Your task to perform on an android device: open app "Indeed Job Search" (install if not already installed) and enter user name: "quixotic@inbox.com" and password: "microphones" Image 0: 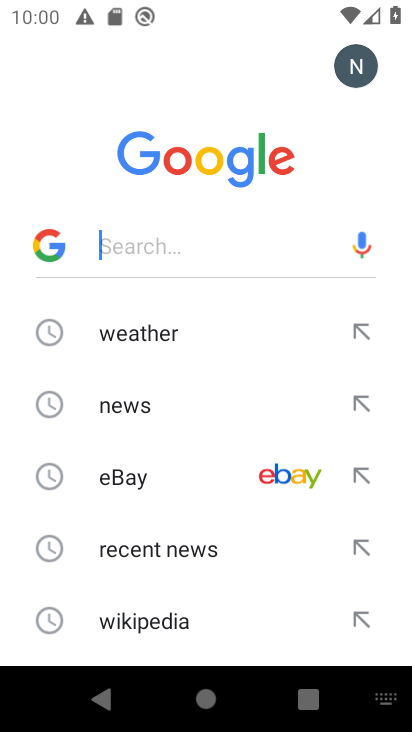
Step 0: press home button
Your task to perform on an android device: open app "Indeed Job Search" (install if not already installed) and enter user name: "quixotic@inbox.com" and password: "microphones" Image 1: 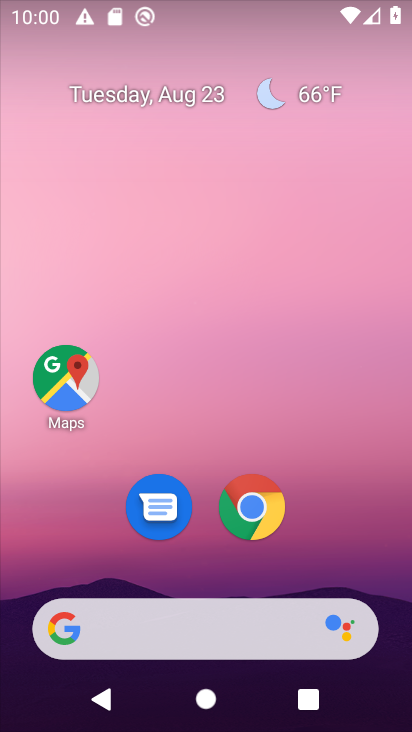
Step 1: drag from (396, 631) to (359, 106)
Your task to perform on an android device: open app "Indeed Job Search" (install if not already installed) and enter user name: "quixotic@inbox.com" and password: "microphones" Image 2: 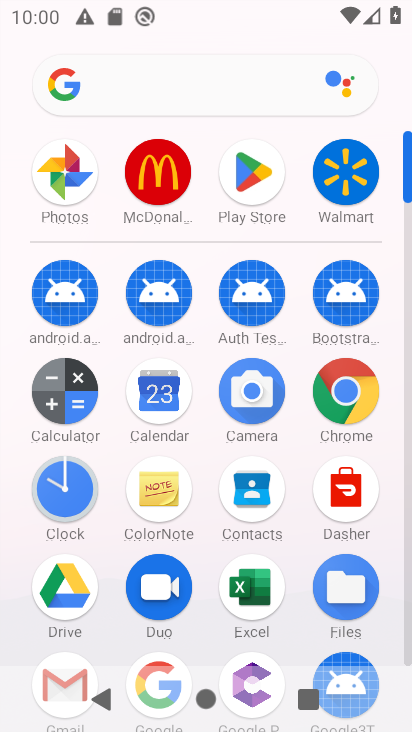
Step 2: click (409, 643)
Your task to perform on an android device: open app "Indeed Job Search" (install if not already installed) and enter user name: "quixotic@inbox.com" and password: "microphones" Image 3: 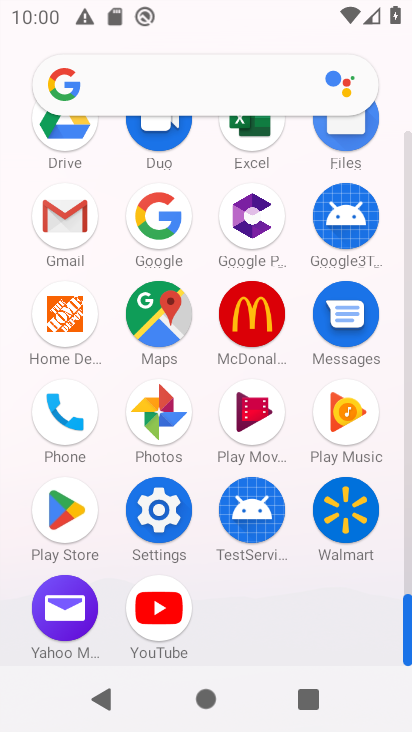
Step 3: click (66, 505)
Your task to perform on an android device: open app "Indeed Job Search" (install if not already installed) and enter user name: "quixotic@inbox.com" and password: "microphones" Image 4: 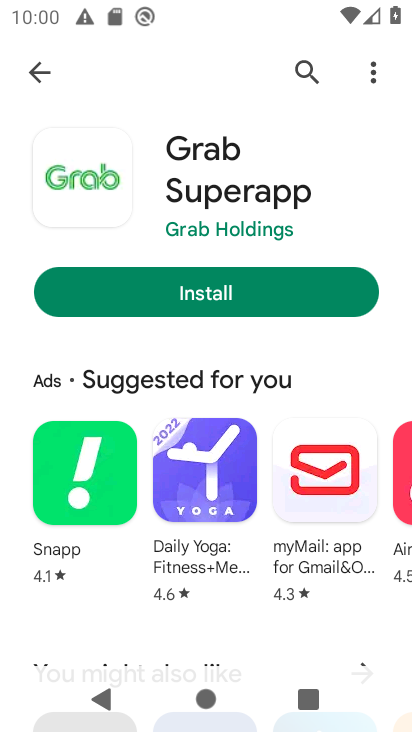
Step 4: click (303, 70)
Your task to perform on an android device: open app "Indeed Job Search" (install if not already installed) and enter user name: "quixotic@inbox.com" and password: "microphones" Image 5: 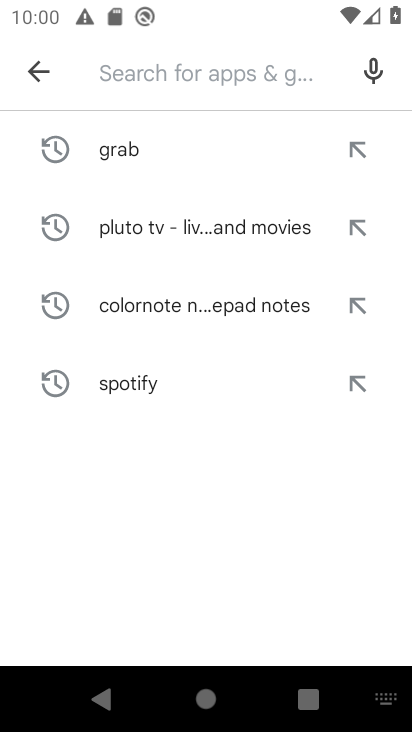
Step 5: type "Indeed Job Search"
Your task to perform on an android device: open app "Indeed Job Search" (install if not already installed) and enter user name: "quixotic@inbox.com" and password: "microphones" Image 6: 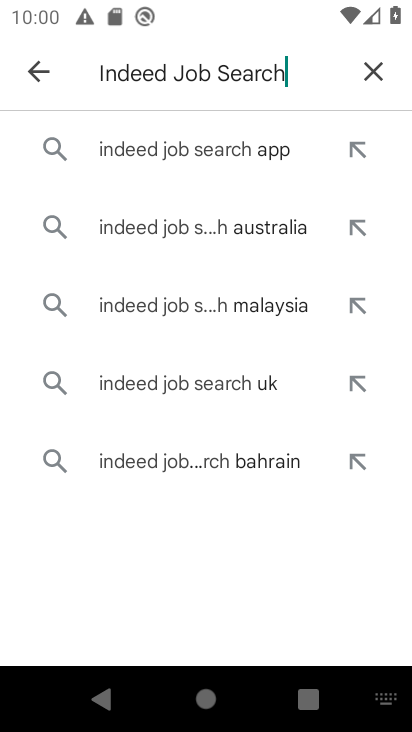
Step 6: click (208, 151)
Your task to perform on an android device: open app "Indeed Job Search" (install if not already installed) and enter user name: "quixotic@inbox.com" and password: "microphones" Image 7: 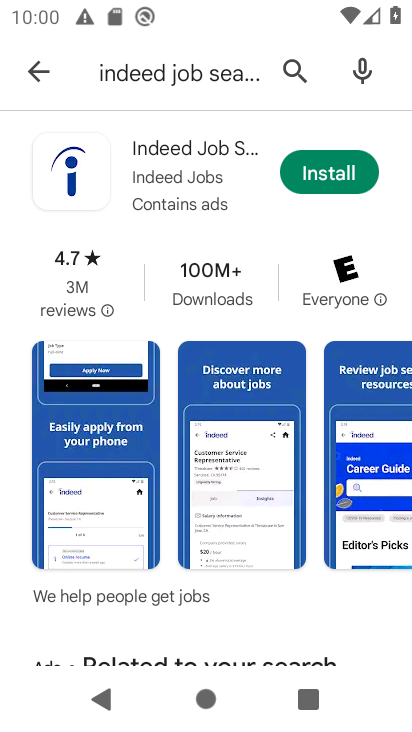
Step 7: click (171, 165)
Your task to perform on an android device: open app "Indeed Job Search" (install if not already installed) and enter user name: "quixotic@inbox.com" and password: "microphones" Image 8: 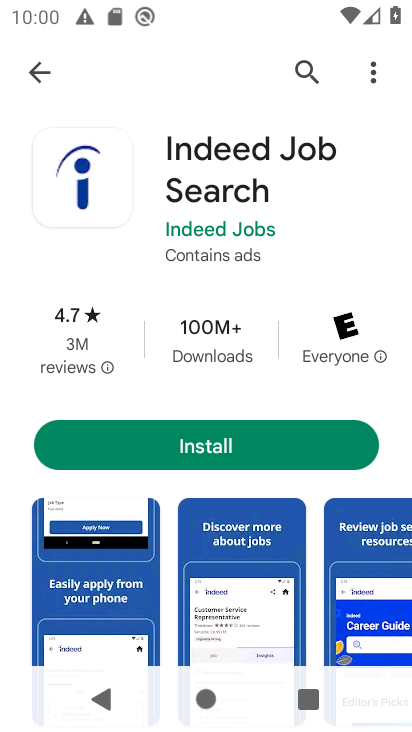
Step 8: click (197, 446)
Your task to perform on an android device: open app "Indeed Job Search" (install if not already installed) and enter user name: "quixotic@inbox.com" and password: "microphones" Image 9: 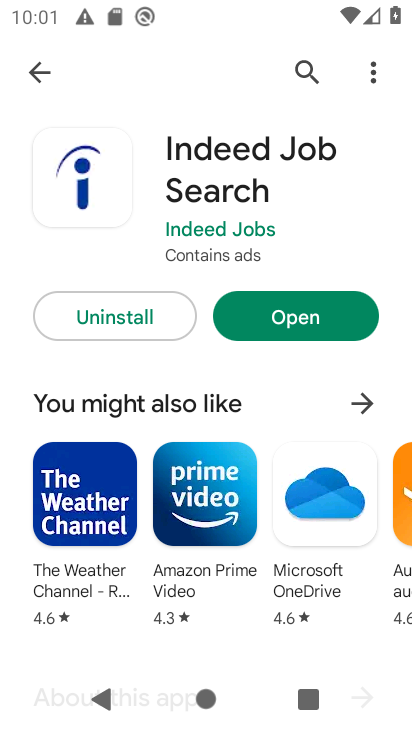
Step 9: click (291, 314)
Your task to perform on an android device: open app "Indeed Job Search" (install if not already installed) and enter user name: "quixotic@inbox.com" and password: "microphones" Image 10: 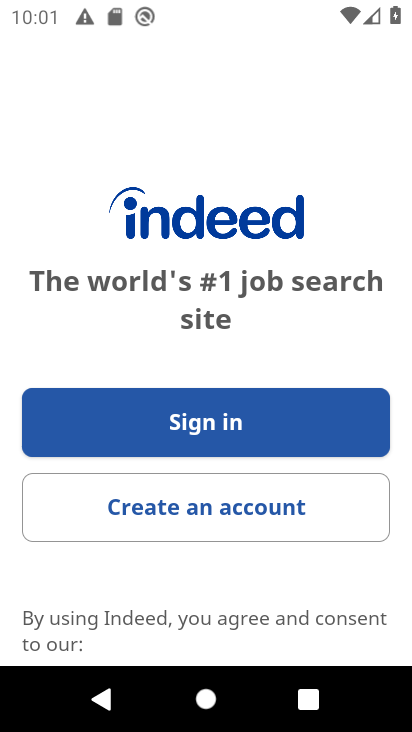
Step 10: click (205, 425)
Your task to perform on an android device: open app "Indeed Job Search" (install if not already installed) and enter user name: "quixotic@inbox.com" and password: "microphones" Image 11: 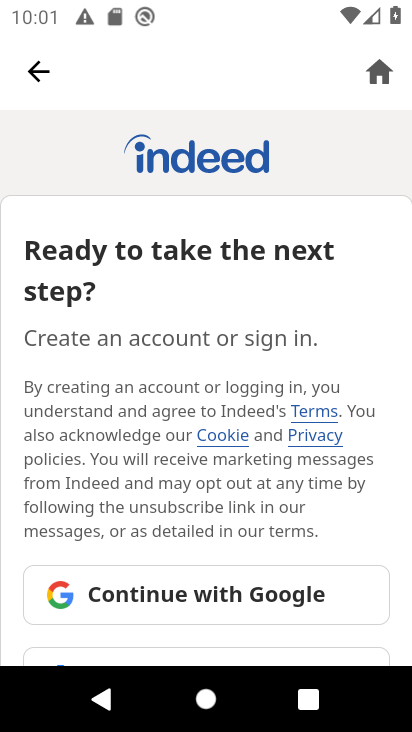
Step 11: drag from (212, 508) to (215, 160)
Your task to perform on an android device: open app "Indeed Job Search" (install if not already installed) and enter user name: "quixotic@inbox.com" and password: "microphones" Image 12: 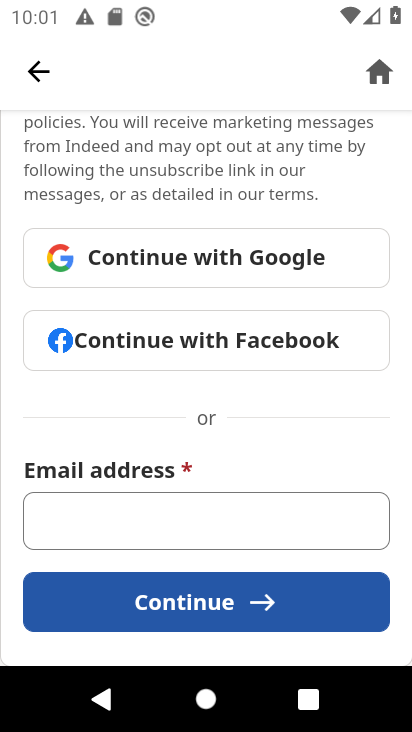
Step 12: click (151, 513)
Your task to perform on an android device: open app "Indeed Job Search" (install if not already installed) and enter user name: "quixotic@inbox.com" and password: "microphones" Image 13: 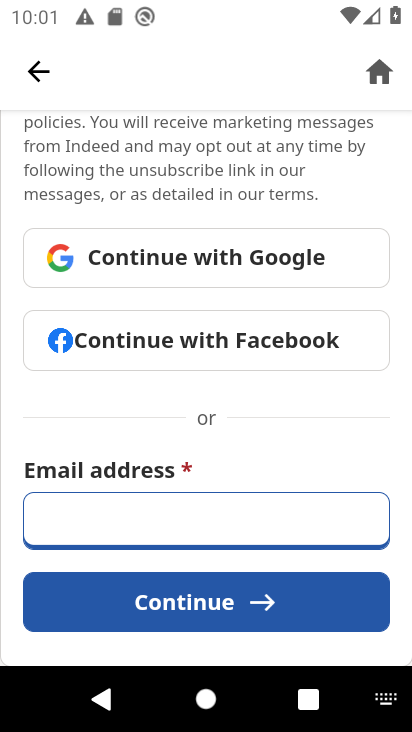
Step 13: type "quixotic@inbox.com"
Your task to perform on an android device: open app "Indeed Job Search" (install if not already installed) and enter user name: "quixotic@inbox.com" and password: "microphones" Image 14: 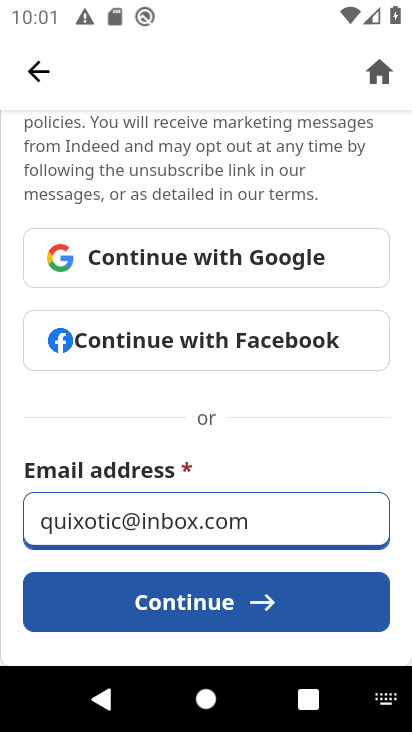
Step 14: click (180, 615)
Your task to perform on an android device: open app "Indeed Job Search" (install if not already installed) and enter user name: "quixotic@inbox.com" and password: "microphones" Image 15: 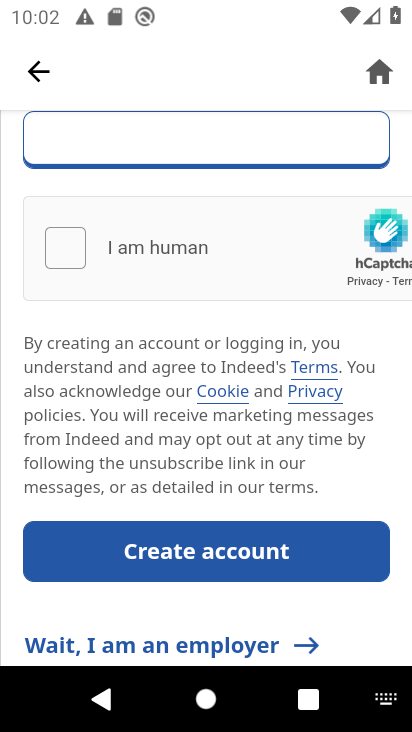
Step 15: type "microphones"
Your task to perform on an android device: open app "Indeed Job Search" (install if not already installed) and enter user name: "quixotic@inbox.com" and password: "microphones" Image 16: 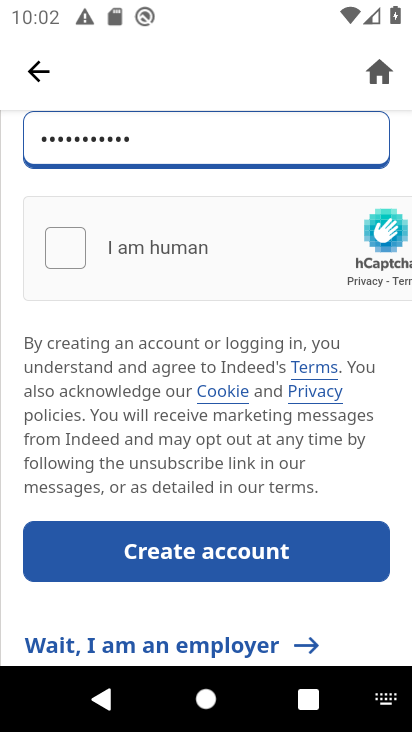
Step 16: click (65, 250)
Your task to perform on an android device: open app "Indeed Job Search" (install if not already installed) and enter user name: "quixotic@inbox.com" and password: "microphones" Image 17: 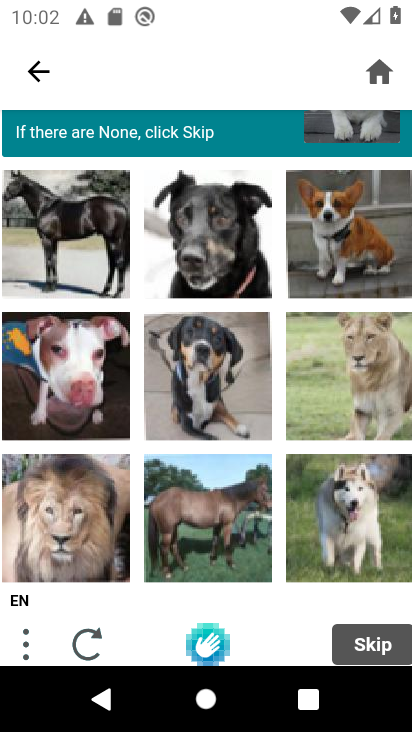
Step 17: task complete